Your task to perform on an android device: Show me productivity apps on the Play Store Image 0: 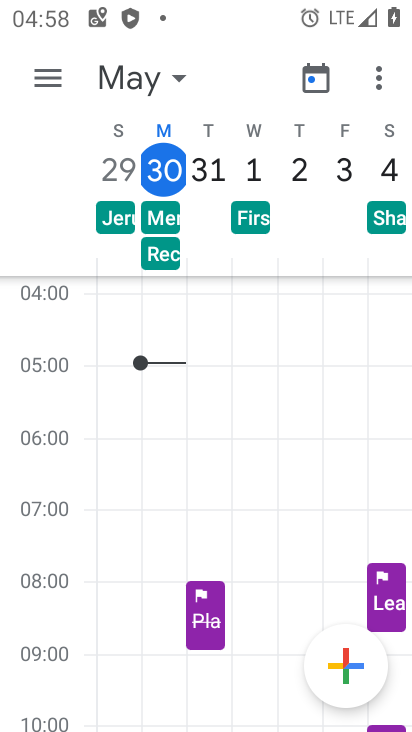
Step 0: press home button
Your task to perform on an android device: Show me productivity apps on the Play Store Image 1: 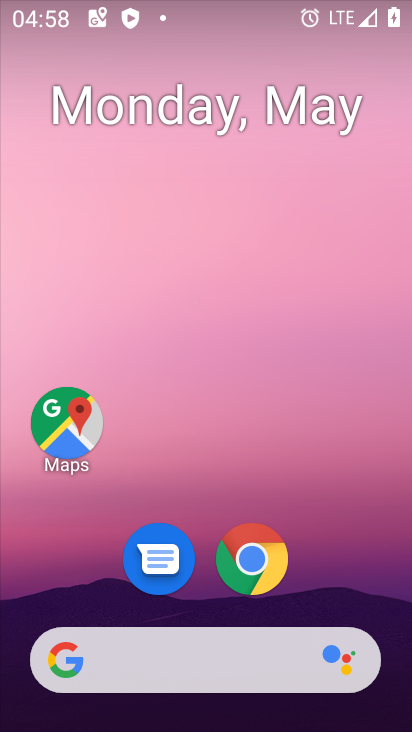
Step 1: drag from (190, 615) to (301, 19)
Your task to perform on an android device: Show me productivity apps on the Play Store Image 2: 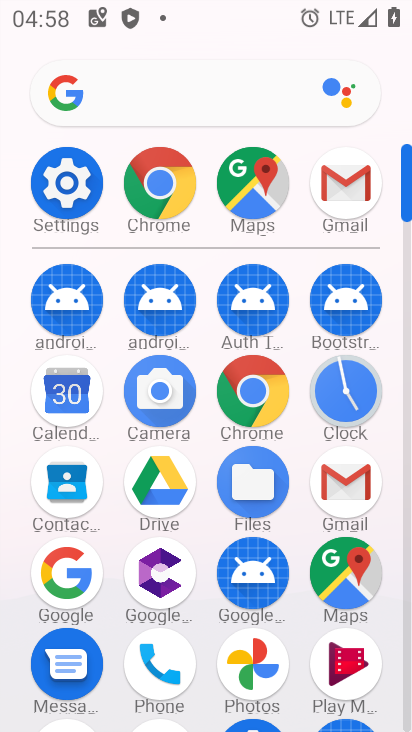
Step 2: drag from (299, 658) to (410, 90)
Your task to perform on an android device: Show me productivity apps on the Play Store Image 3: 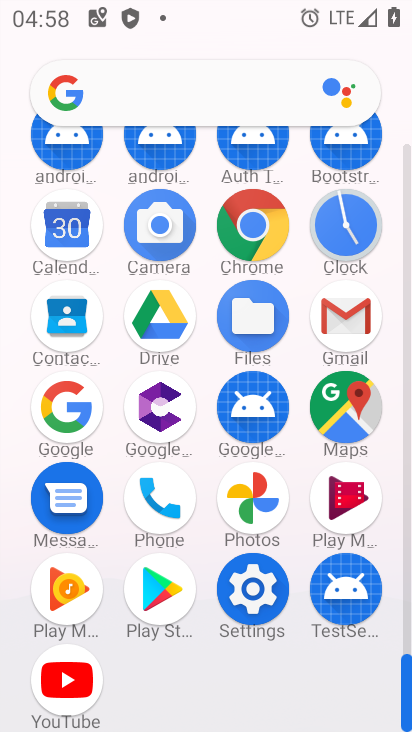
Step 3: click (156, 595)
Your task to perform on an android device: Show me productivity apps on the Play Store Image 4: 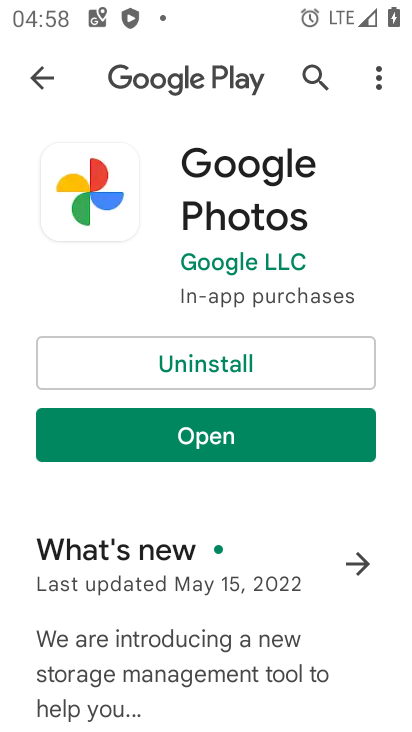
Step 4: press home button
Your task to perform on an android device: Show me productivity apps on the Play Store Image 5: 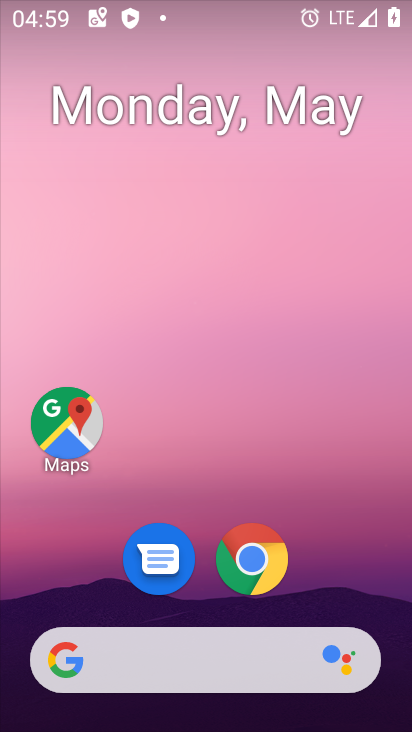
Step 5: drag from (364, 660) to (352, 0)
Your task to perform on an android device: Show me productivity apps on the Play Store Image 6: 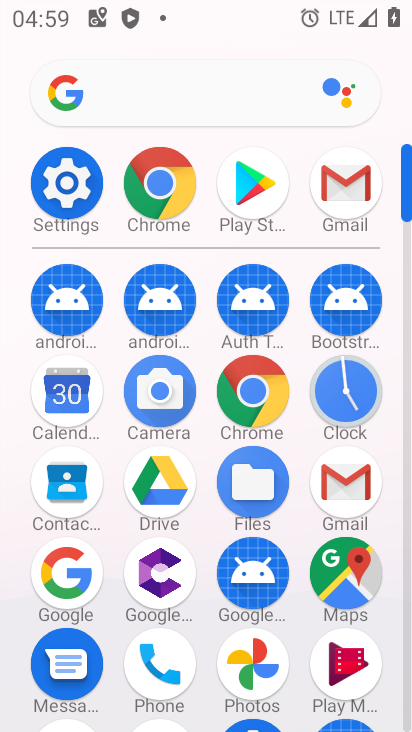
Step 6: drag from (311, 652) to (308, 257)
Your task to perform on an android device: Show me productivity apps on the Play Store Image 7: 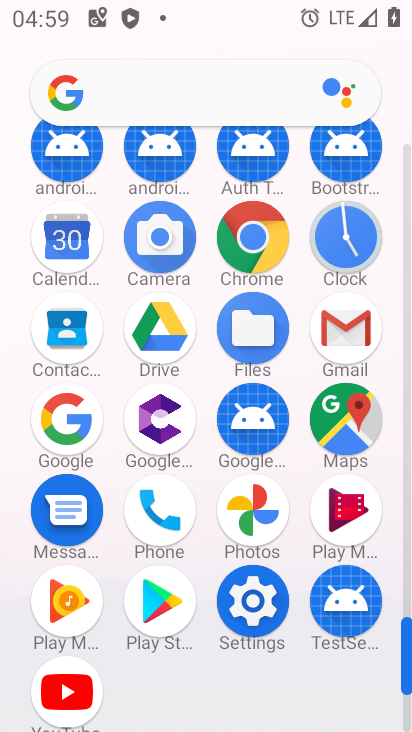
Step 7: click (170, 603)
Your task to perform on an android device: Show me productivity apps on the Play Store Image 8: 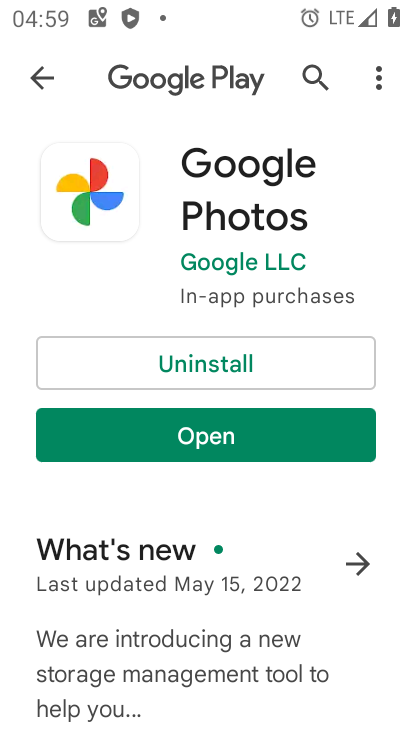
Step 8: press back button
Your task to perform on an android device: Show me productivity apps on the Play Store Image 9: 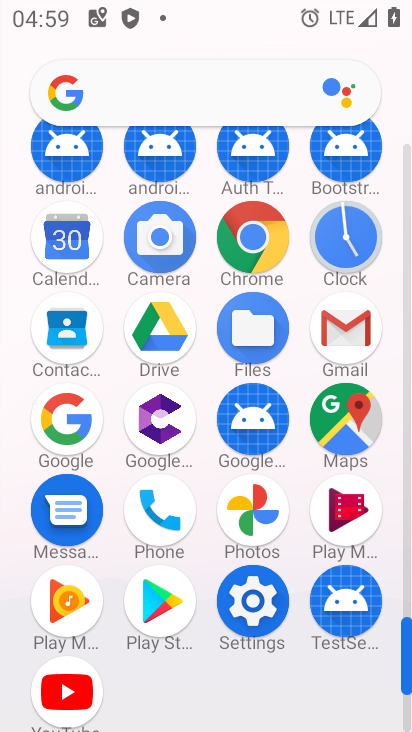
Step 9: click (164, 611)
Your task to perform on an android device: Show me productivity apps on the Play Store Image 10: 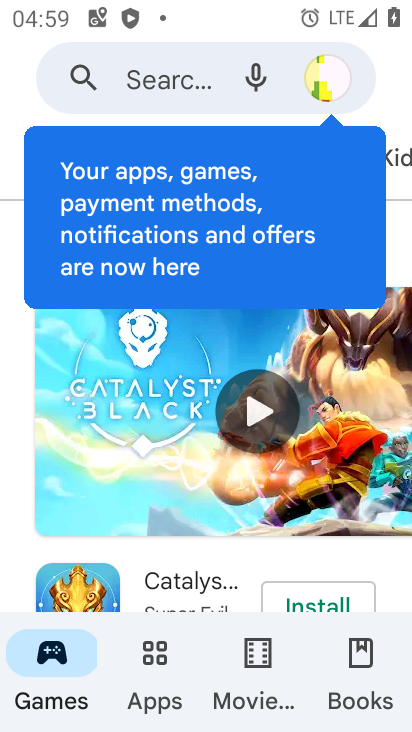
Step 10: click (156, 644)
Your task to perform on an android device: Show me productivity apps on the Play Store Image 11: 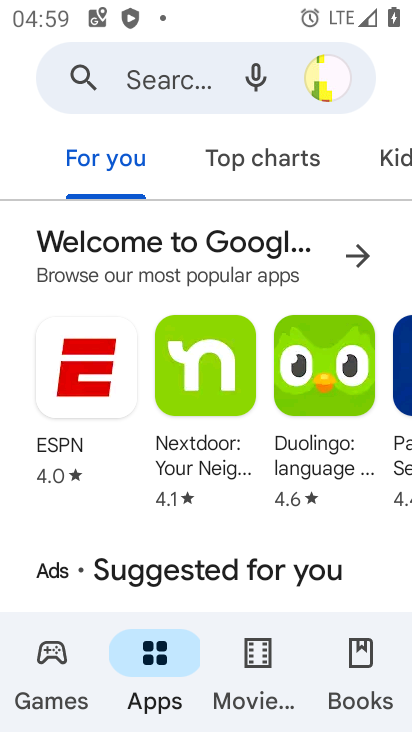
Step 11: drag from (308, 587) to (309, 154)
Your task to perform on an android device: Show me productivity apps on the Play Store Image 12: 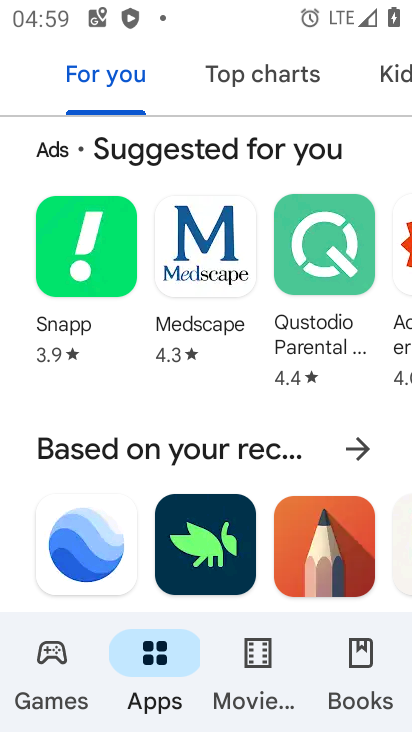
Step 12: drag from (281, 578) to (340, 97)
Your task to perform on an android device: Show me productivity apps on the Play Store Image 13: 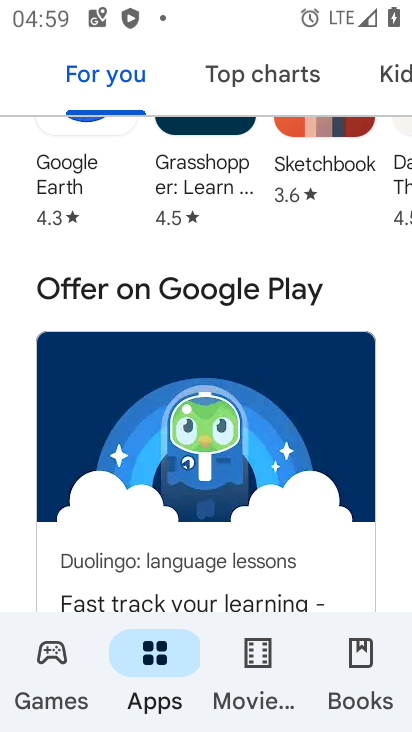
Step 13: drag from (315, 309) to (317, 113)
Your task to perform on an android device: Show me productivity apps on the Play Store Image 14: 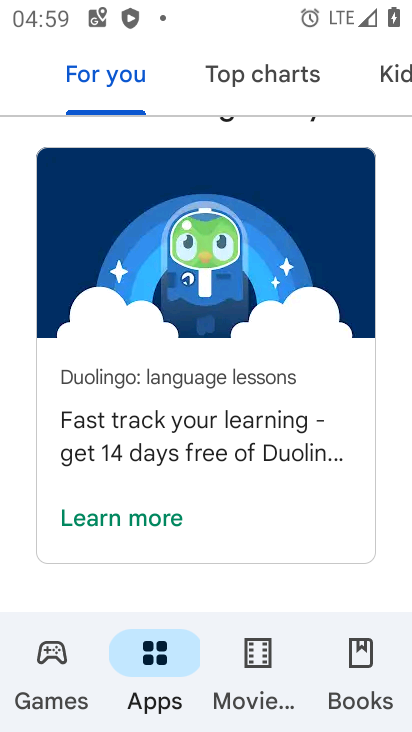
Step 14: drag from (315, 585) to (340, 166)
Your task to perform on an android device: Show me productivity apps on the Play Store Image 15: 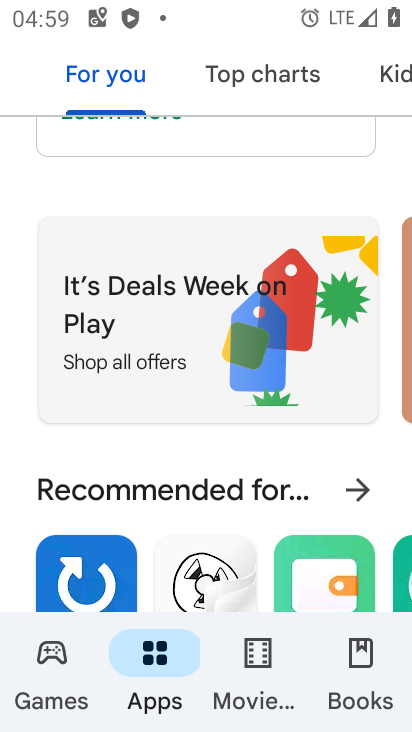
Step 15: drag from (364, 522) to (354, 138)
Your task to perform on an android device: Show me productivity apps on the Play Store Image 16: 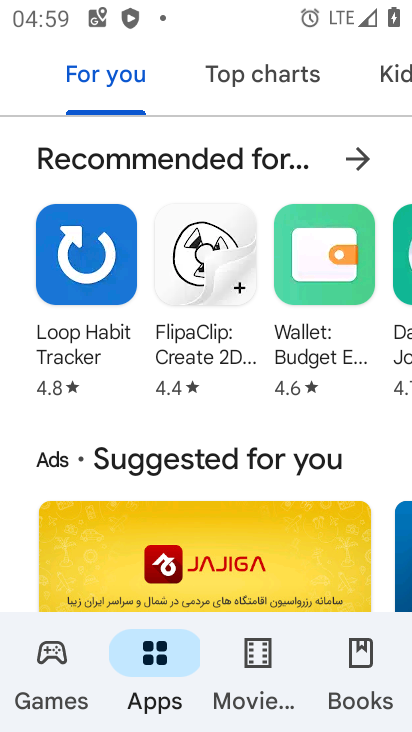
Step 16: drag from (293, 523) to (294, 220)
Your task to perform on an android device: Show me productivity apps on the Play Store Image 17: 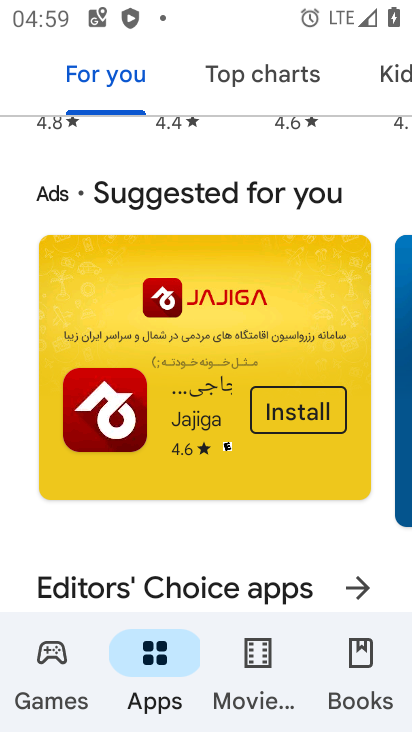
Step 17: drag from (349, 555) to (365, 195)
Your task to perform on an android device: Show me productivity apps on the Play Store Image 18: 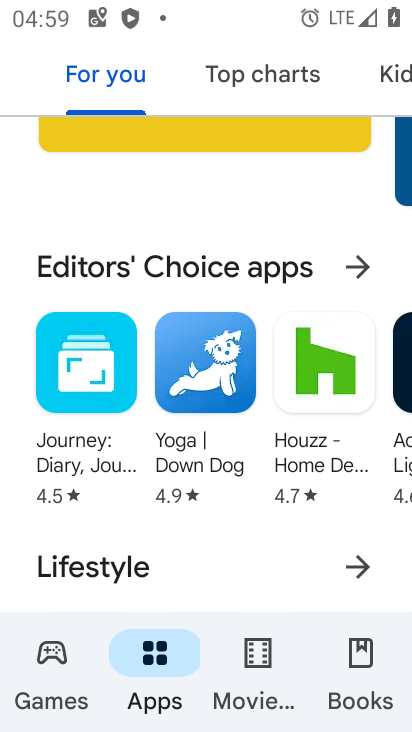
Step 18: drag from (348, 576) to (374, 180)
Your task to perform on an android device: Show me productivity apps on the Play Store Image 19: 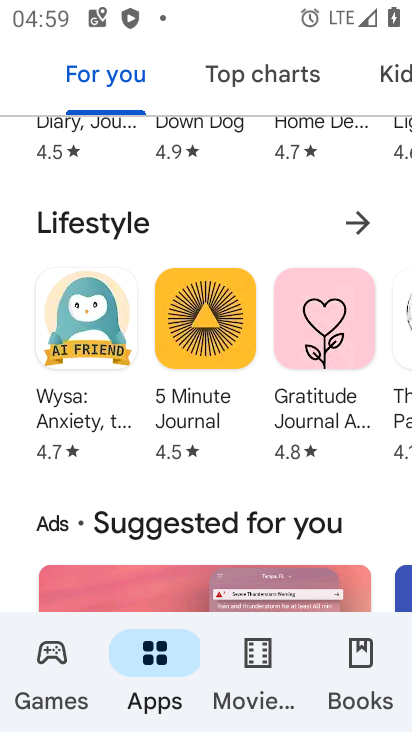
Step 19: drag from (335, 478) to (351, 132)
Your task to perform on an android device: Show me productivity apps on the Play Store Image 20: 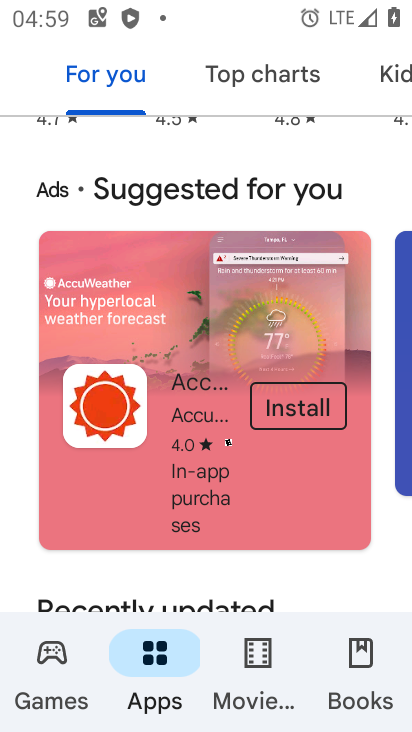
Step 20: drag from (329, 547) to (214, 47)
Your task to perform on an android device: Show me productivity apps on the Play Store Image 21: 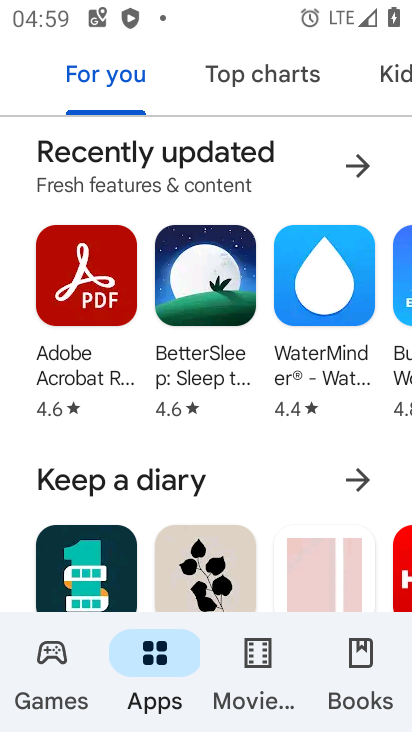
Step 21: drag from (296, 512) to (323, 154)
Your task to perform on an android device: Show me productivity apps on the Play Store Image 22: 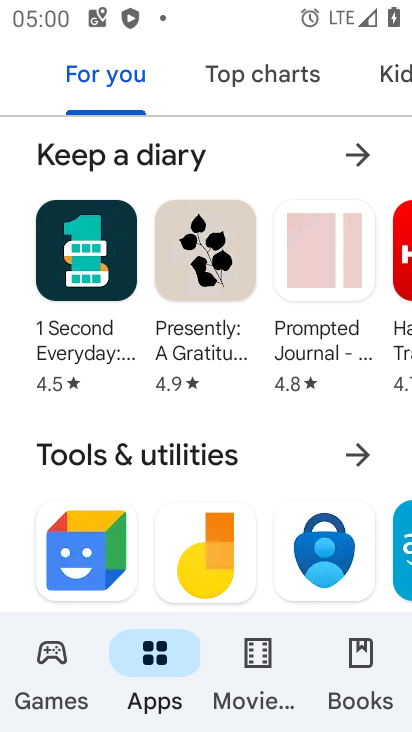
Step 22: drag from (280, 512) to (288, 96)
Your task to perform on an android device: Show me productivity apps on the Play Store Image 23: 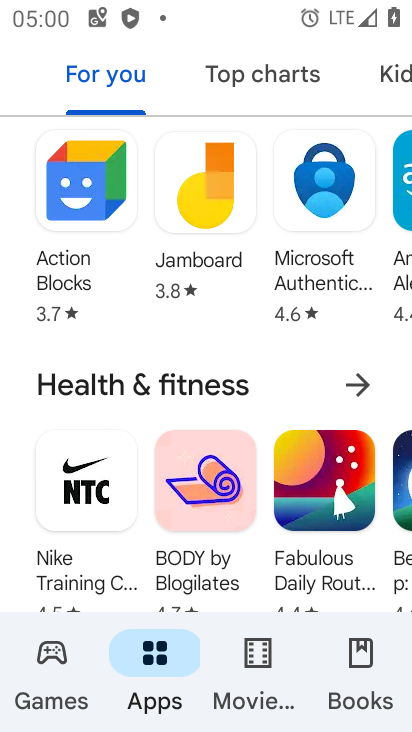
Step 23: drag from (303, 521) to (312, 106)
Your task to perform on an android device: Show me productivity apps on the Play Store Image 24: 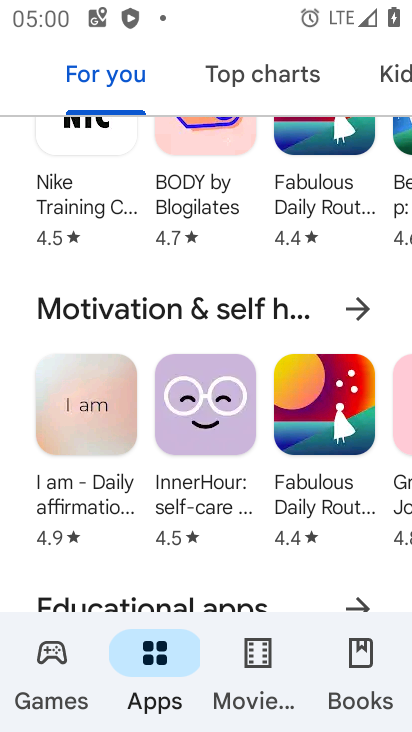
Step 24: drag from (249, 547) to (277, 177)
Your task to perform on an android device: Show me productivity apps on the Play Store Image 25: 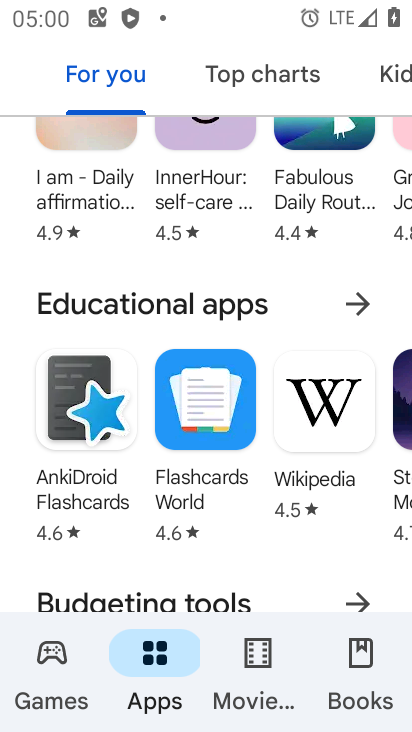
Step 25: drag from (313, 554) to (308, 303)
Your task to perform on an android device: Show me productivity apps on the Play Store Image 26: 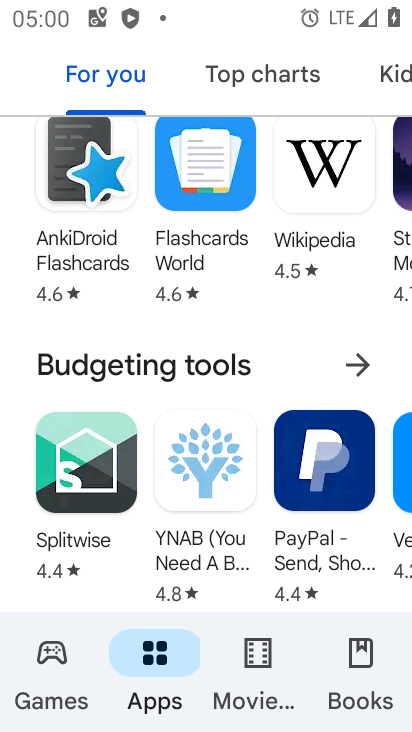
Step 26: drag from (316, 546) to (299, 126)
Your task to perform on an android device: Show me productivity apps on the Play Store Image 27: 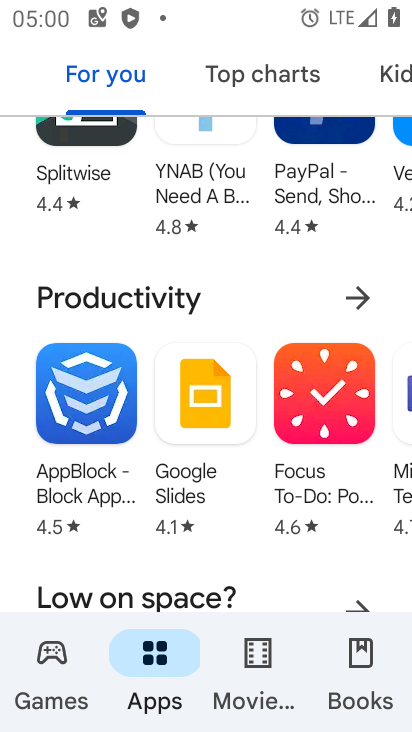
Step 27: click (352, 297)
Your task to perform on an android device: Show me productivity apps on the Play Store Image 28: 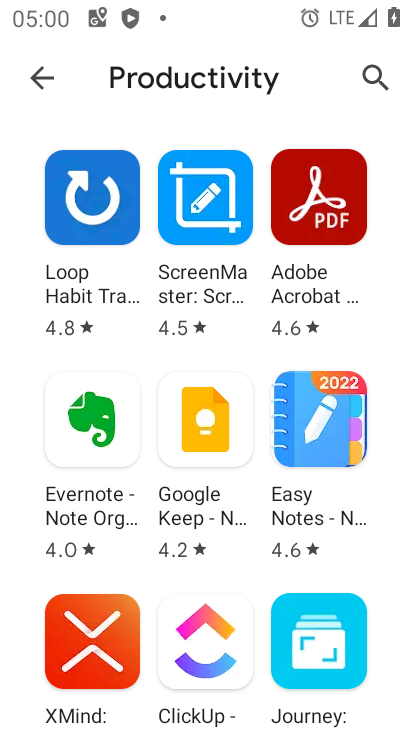
Step 28: task complete